Your task to perform on an android device: change keyboard looks Image 0: 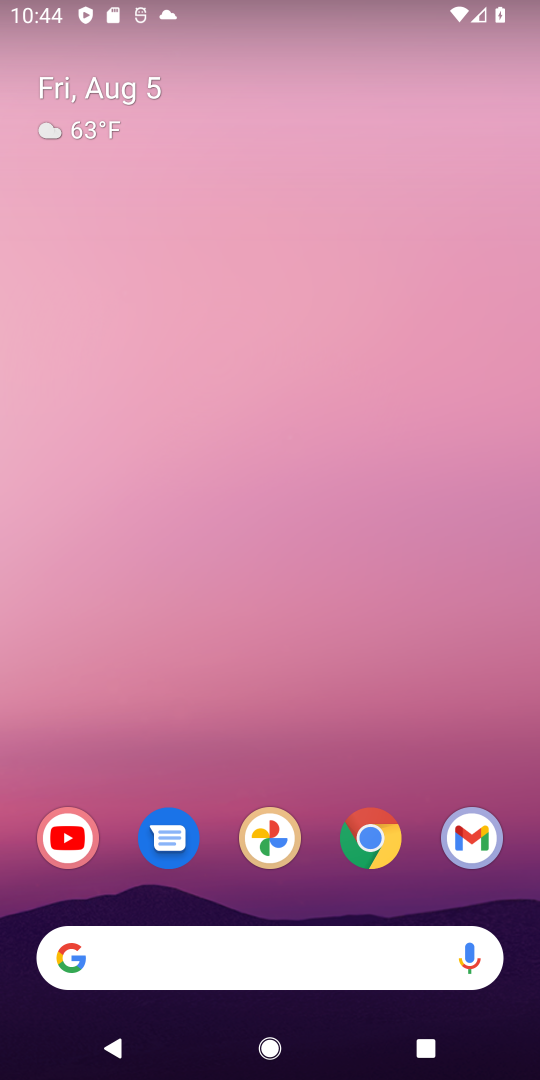
Step 0: drag from (278, 685) to (271, 179)
Your task to perform on an android device: change keyboard looks Image 1: 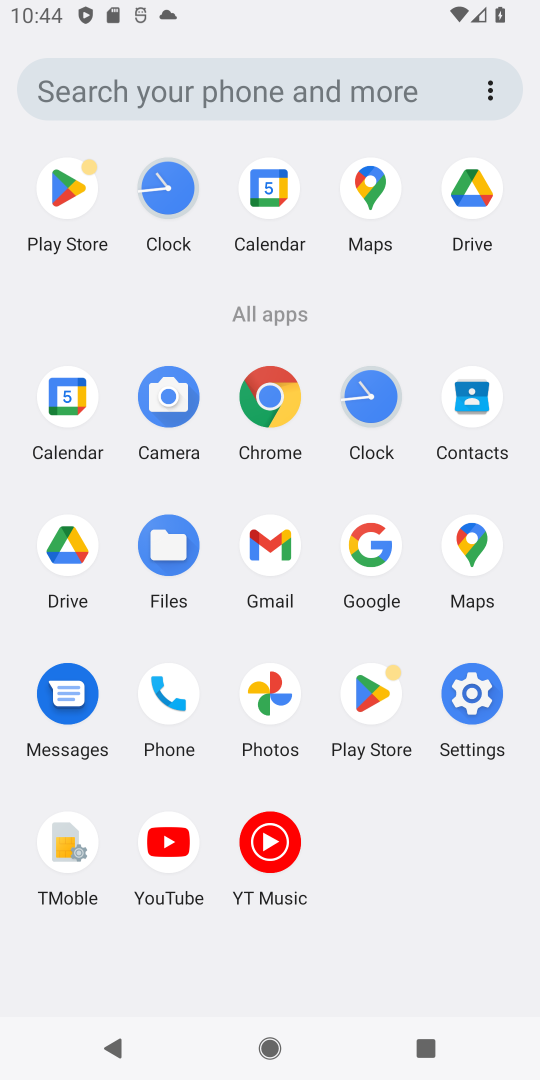
Step 1: click (479, 699)
Your task to perform on an android device: change keyboard looks Image 2: 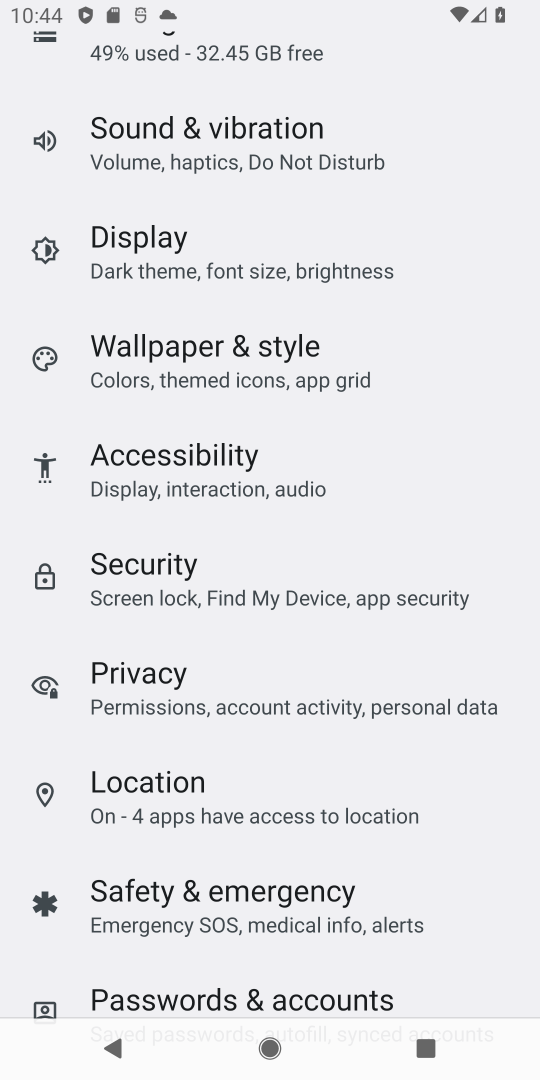
Step 2: task complete